Your task to perform on an android device: delete location history Image 0: 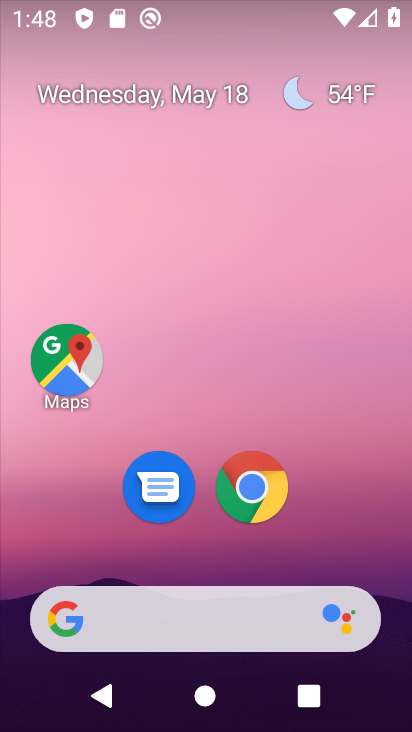
Step 0: drag from (304, 535) to (324, 18)
Your task to perform on an android device: delete location history Image 1: 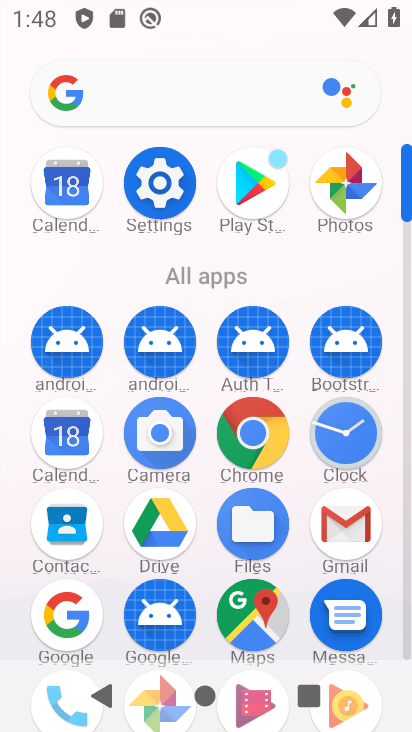
Step 1: click (145, 187)
Your task to perform on an android device: delete location history Image 2: 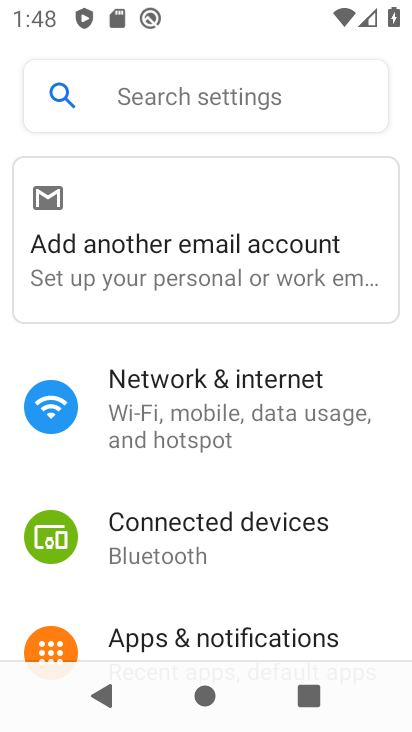
Step 2: drag from (254, 582) to (277, 221)
Your task to perform on an android device: delete location history Image 3: 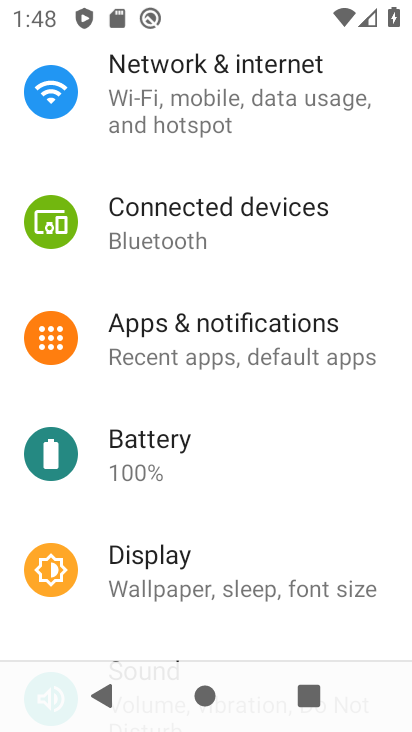
Step 3: drag from (269, 573) to (312, 255)
Your task to perform on an android device: delete location history Image 4: 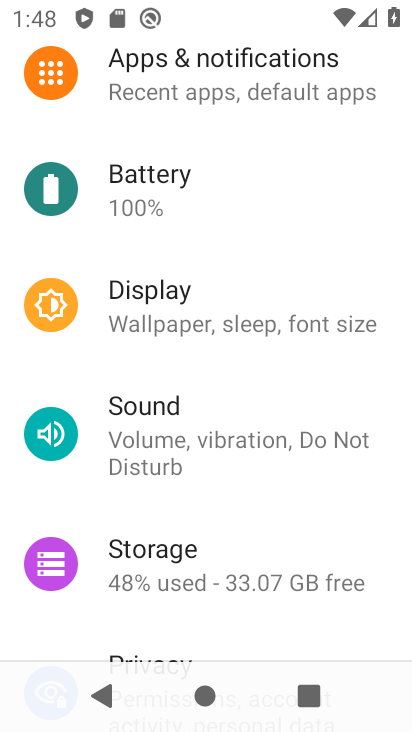
Step 4: drag from (292, 601) to (309, 298)
Your task to perform on an android device: delete location history Image 5: 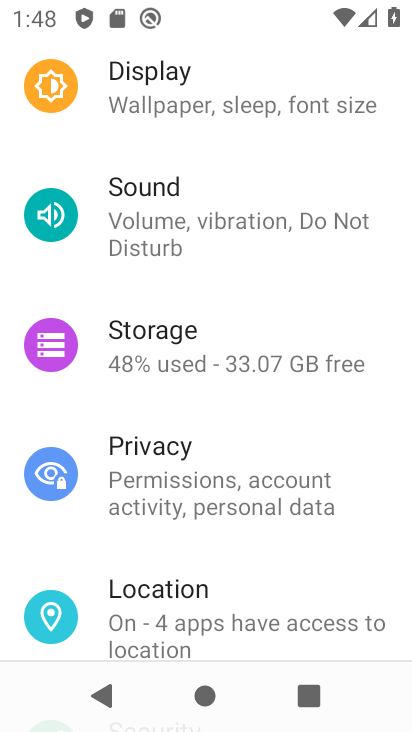
Step 5: click (208, 604)
Your task to perform on an android device: delete location history Image 6: 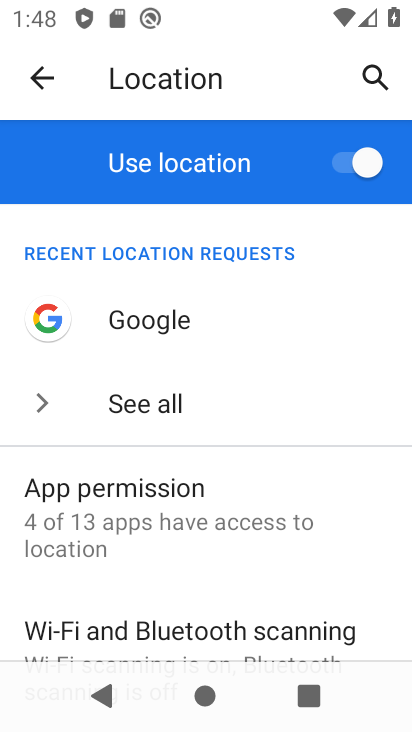
Step 6: drag from (198, 554) to (245, 261)
Your task to perform on an android device: delete location history Image 7: 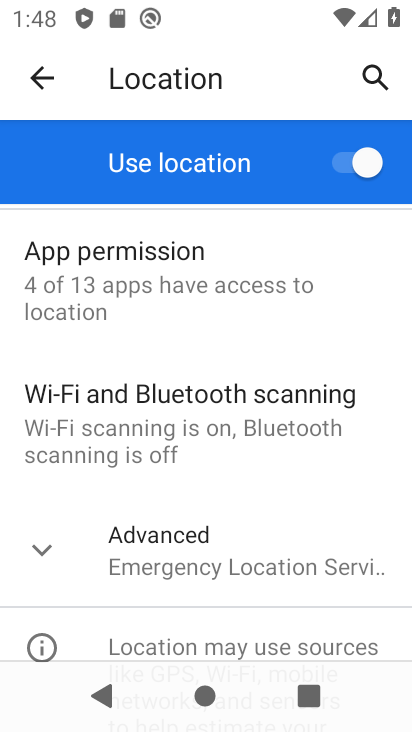
Step 7: click (42, 556)
Your task to perform on an android device: delete location history Image 8: 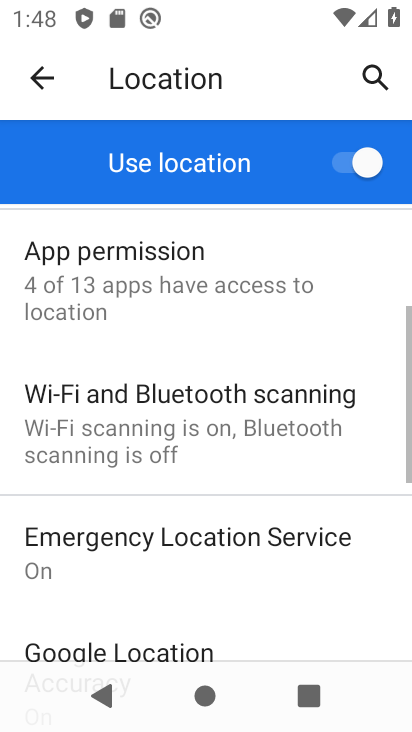
Step 8: drag from (169, 561) to (229, 194)
Your task to perform on an android device: delete location history Image 9: 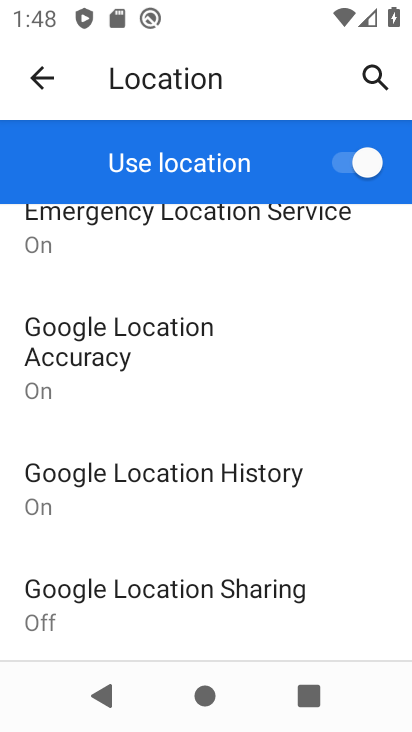
Step 9: click (205, 479)
Your task to perform on an android device: delete location history Image 10: 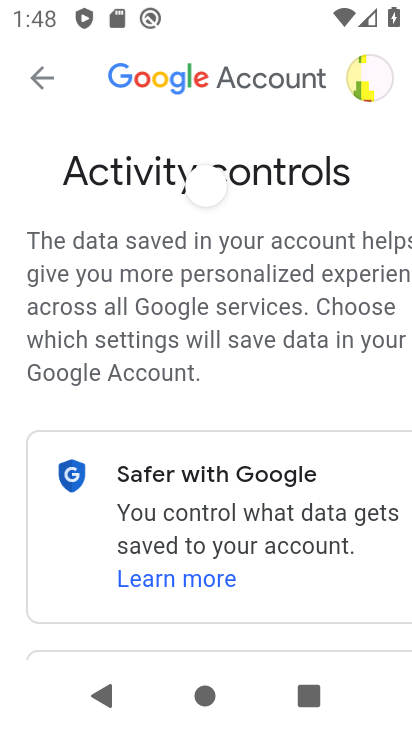
Step 10: drag from (246, 564) to (299, 110)
Your task to perform on an android device: delete location history Image 11: 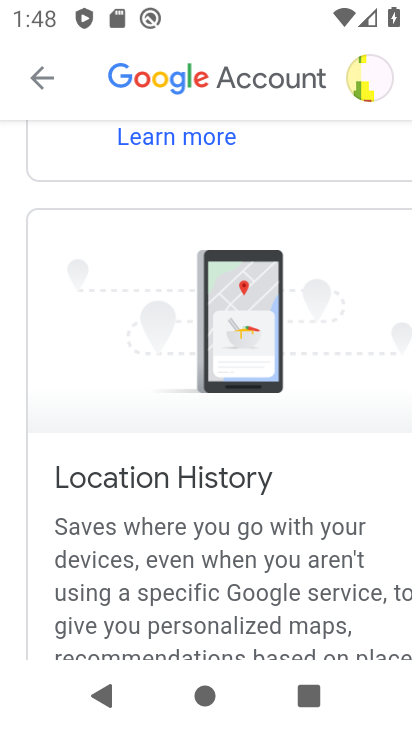
Step 11: drag from (279, 585) to (317, 180)
Your task to perform on an android device: delete location history Image 12: 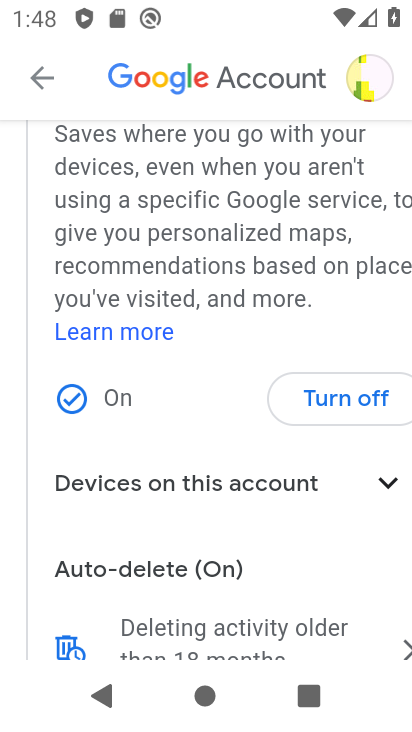
Step 12: drag from (263, 646) to (300, 254)
Your task to perform on an android device: delete location history Image 13: 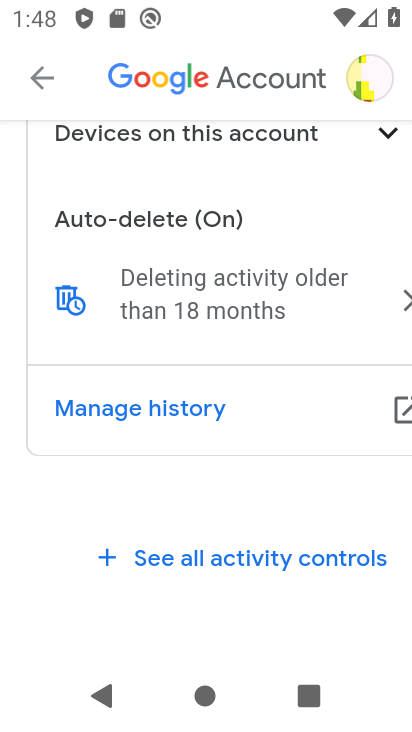
Step 13: click (233, 303)
Your task to perform on an android device: delete location history Image 14: 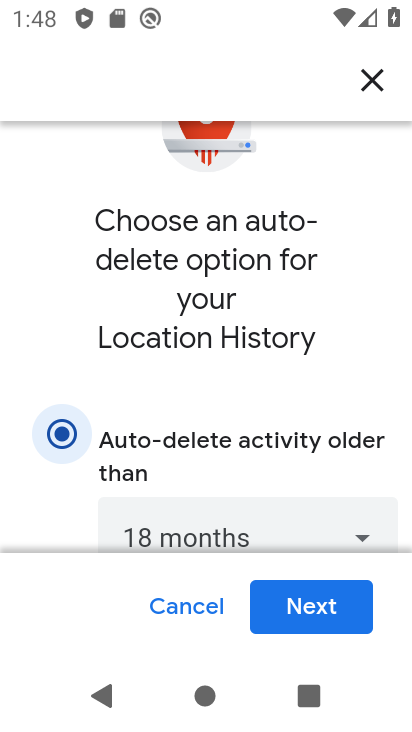
Step 14: click (282, 616)
Your task to perform on an android device: delete location history Image 15: 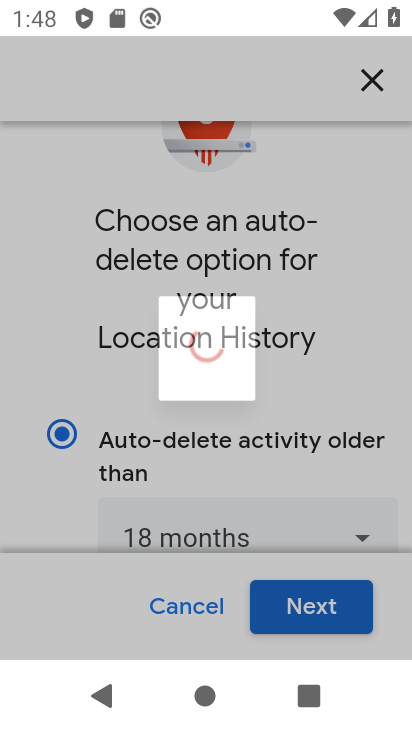
Step 15: click (335, 608)
Your task to perform on an android device: delete location history Image 16: 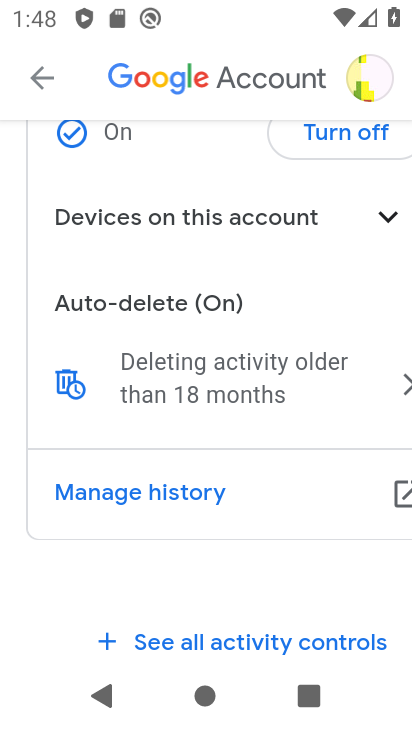
Step 16: task complete